Your task to perform on an android device: turn on airplane mode Image 0: 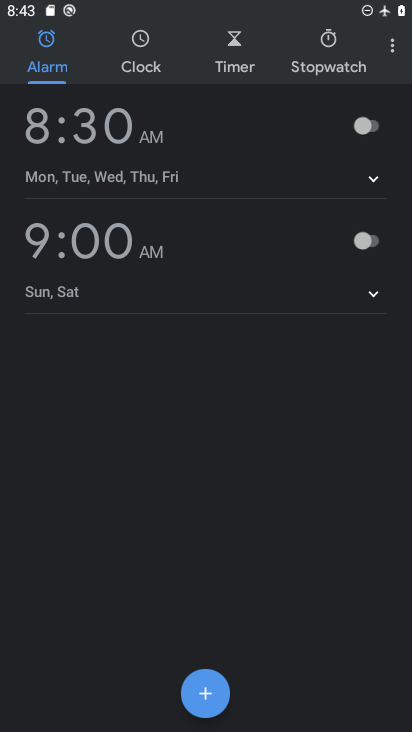
Step 0: press home button
Your task to perform on an android device: turn on airplane mode Image 1: 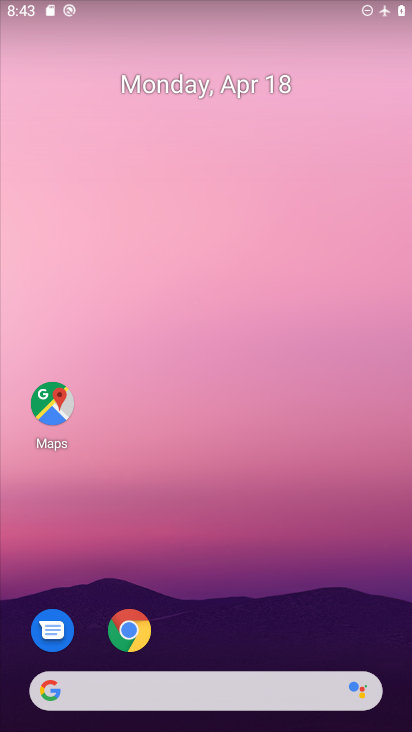
Step 1: drag from (190, 609) to (253, 106)
Your task to perform on an android device: turn on airplane mode Image 2: 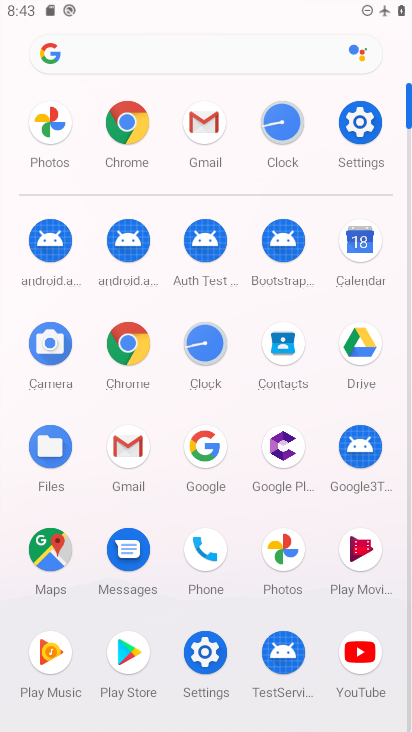
Step 2: click (365, 132)
Your task to perform on an android device: turn on airplane mode Image 3: 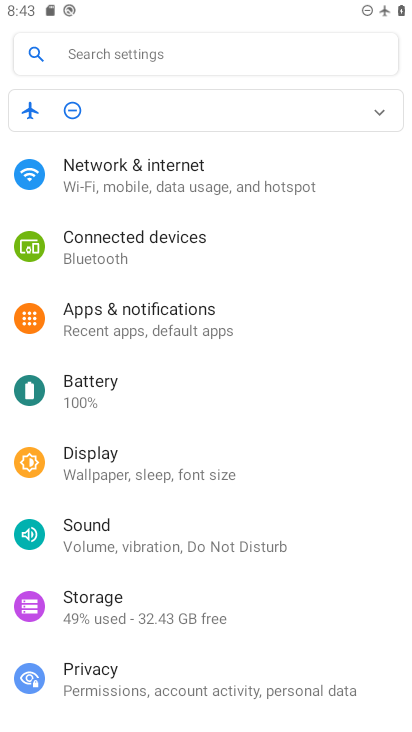
Step 3: click (180, 191)
Your task to perform on an android device: turn on airplane mode Image 4: 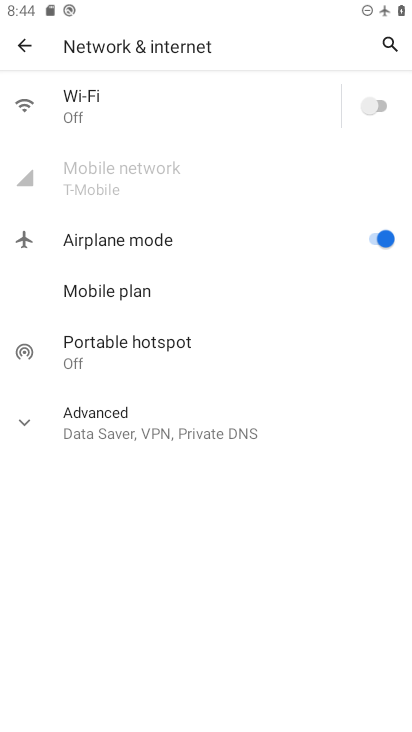
Step 4: task complete